Your task to perform on an android device: all mails in gmail Image 0: 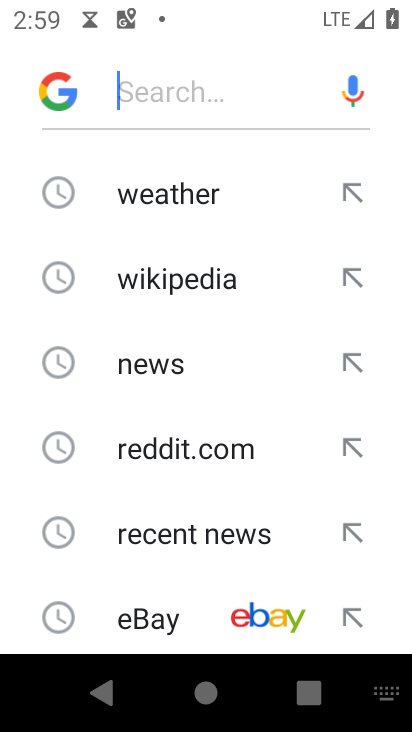
Step 0: press home button
Your task to perform on an android device: all mails in gmail Image 1: 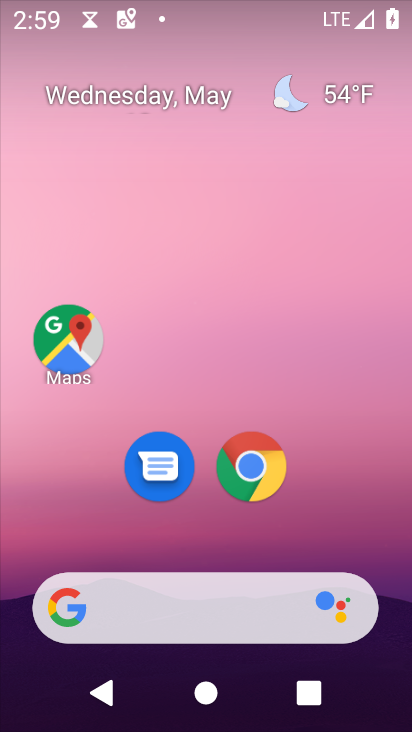
Step 1: drag from (283, 556) to (162, 25)
Your task to perform on an android device: all mails in gmail Image 2: 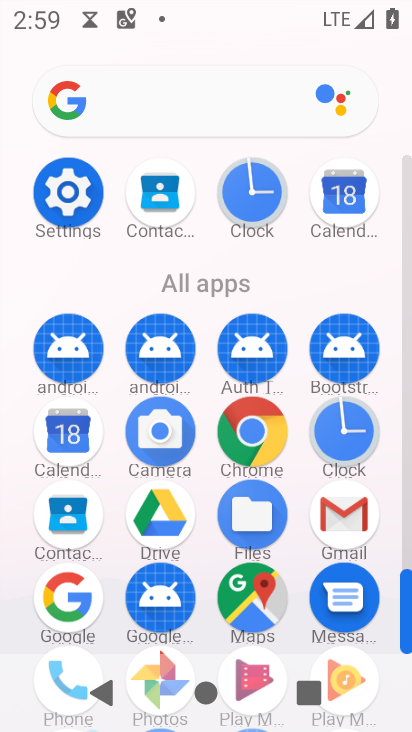
Step 2: click (363, 508)
Your task to perform on an android device: all mails in gmail Image 3: 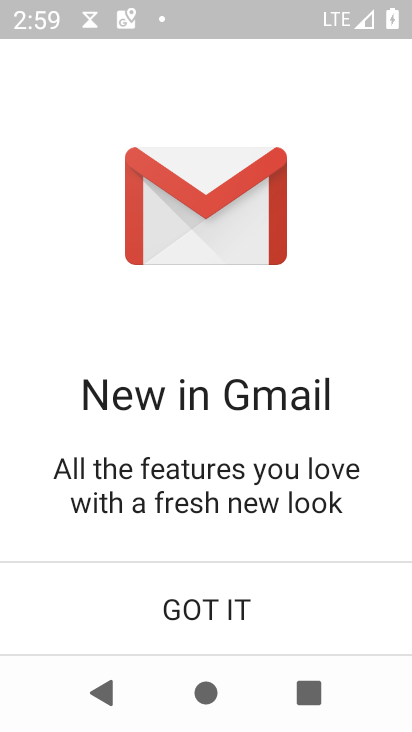
Step 3: click (263, 598)
Your task to perform on an android device: all mails in gmail Image 4: 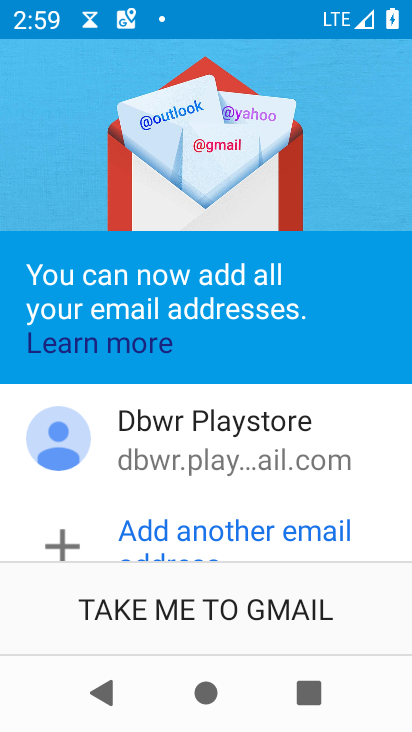
Step 4: click (298, 628)
Your task to perform on an android device: all mails in gmail Image 5: 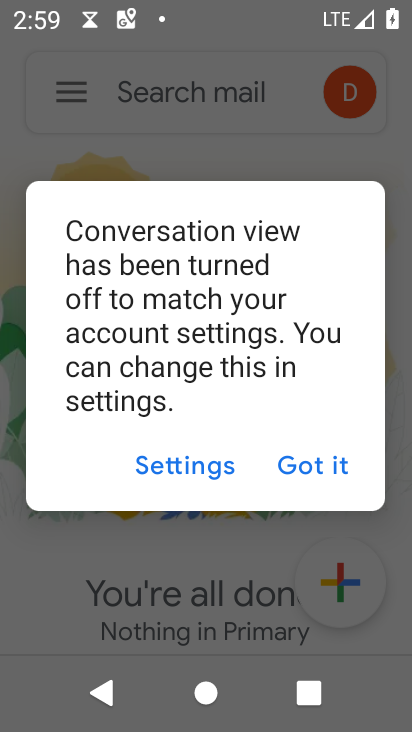
Step 5: click (312, 458)
Your task to perform on an android device: all mails in gmail Image 6: 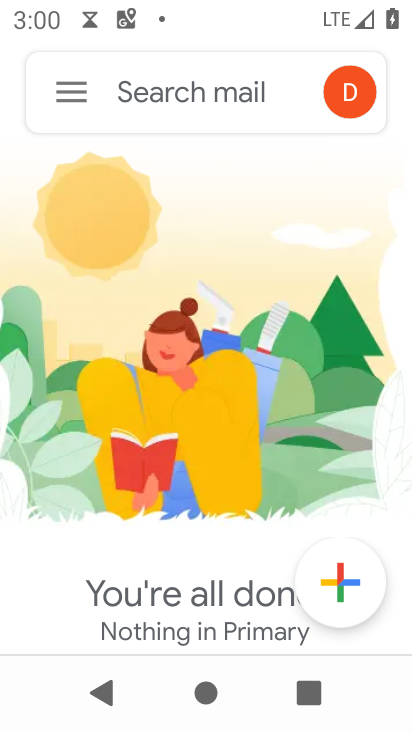
Step 6: click (76, 104)
Your task to perform on an android device: all mails in gmail Image 7: 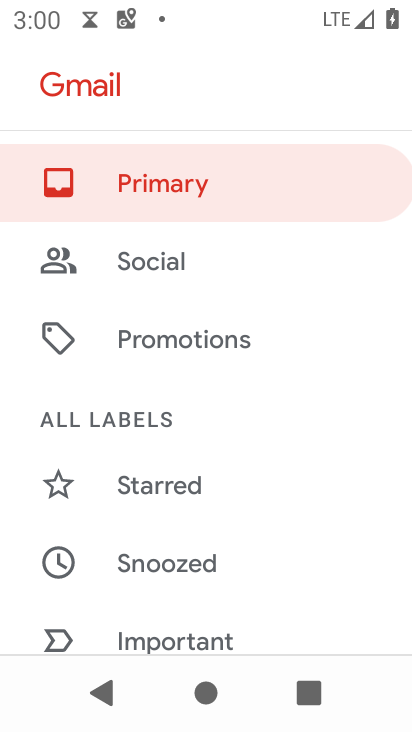
Step 7: drag from (344, 581) to (271, 145)
Your task to perform on an android device: all mails in gmail Image 8: 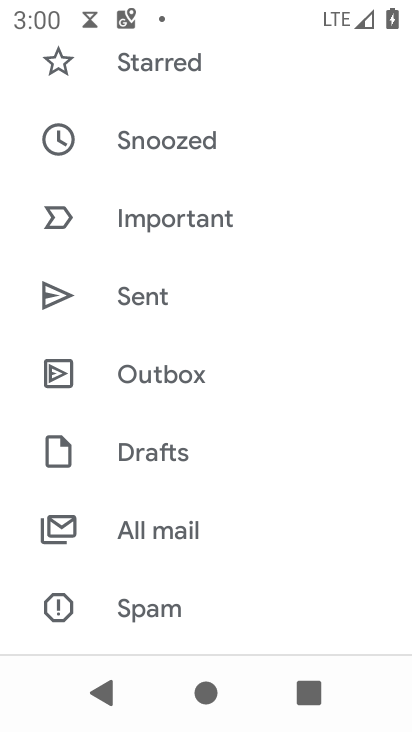
Step 8: click (255, 542)
Your task to perform on an android device: all mails in gmail Image 9: 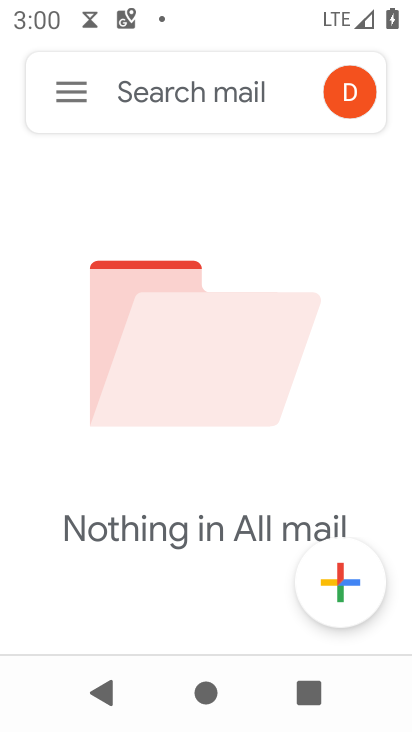
Step 9: task complete